Your task to perform on an android device: Go to Amazon Image 0: 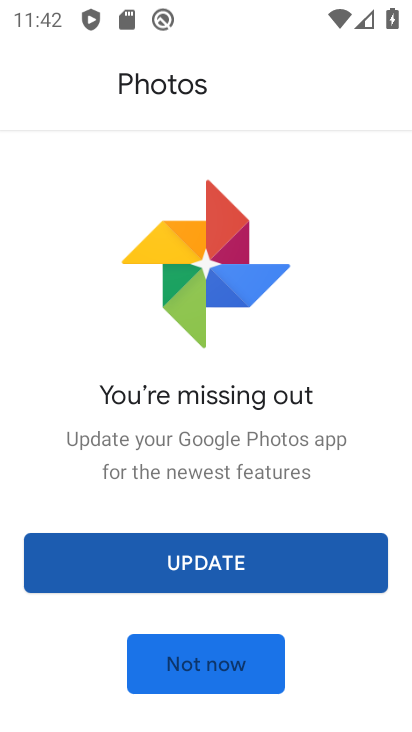
Step 0: press home button
Your task to perform on an android device: Go to Amazon Image 1: 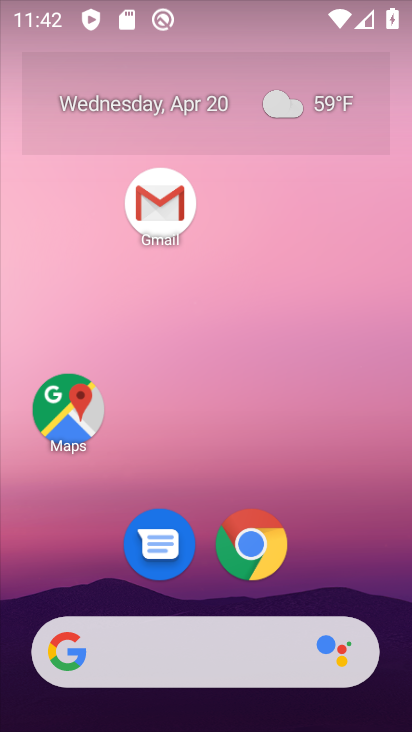
Step 1: click (249, 563)
Your task to perform on an android device: Go to Amazon Image 2: 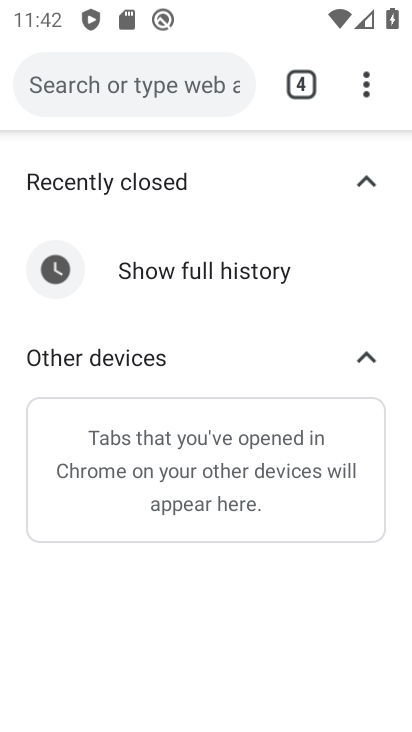
Step 2: click (308, 78)
Your task to perform on an android device: Go to Amazon Image 3: 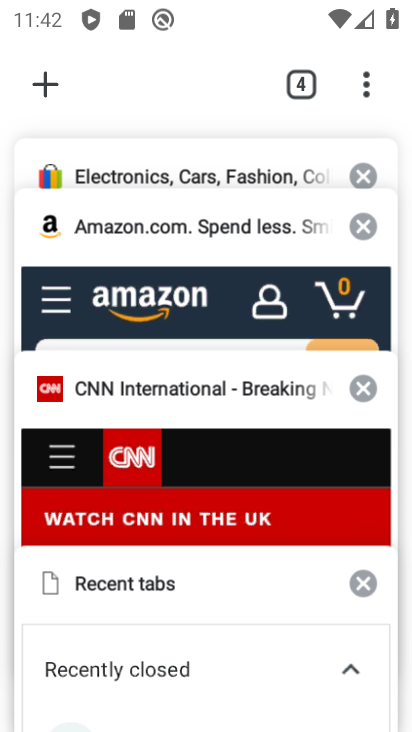
Step 3: click (63, 86)
Your task to perform on an android device: Go to Amazon Image 4: 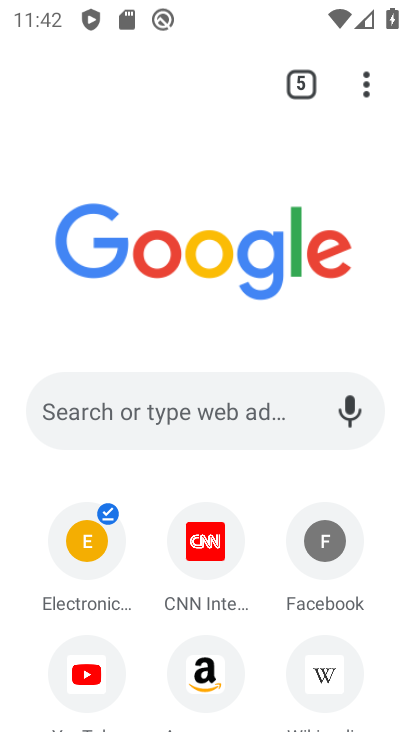
Step 4: click (213, 671)
Your task to perform on an android device: Go to Amazon Image 5: 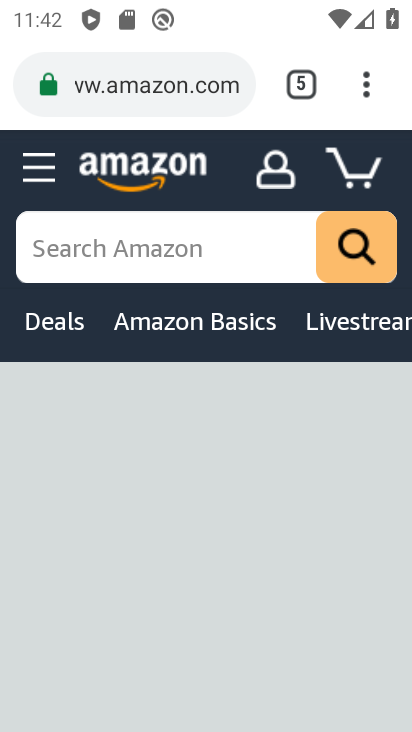
Step 5: task complete